Your task to perform on an android device: Clear the cart on target.com. Add apple airpods pro to the cart on target.com Image 0: 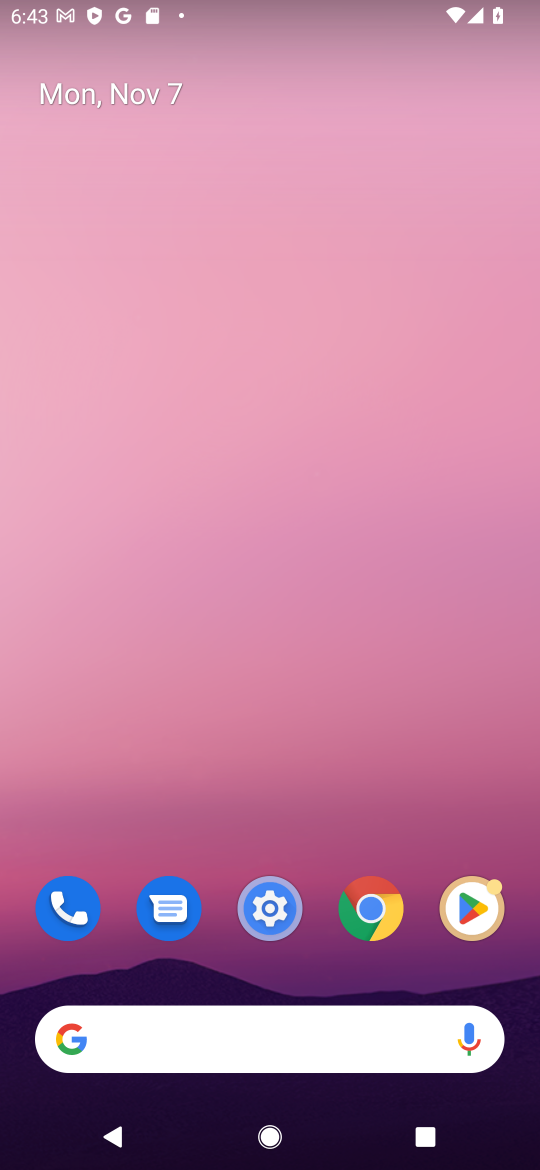
Step 0: click (361, 985)
Your task to perform on an android device: Clear the cart on target.com. Add apple airpods pro to the cart on target.com Image 1: 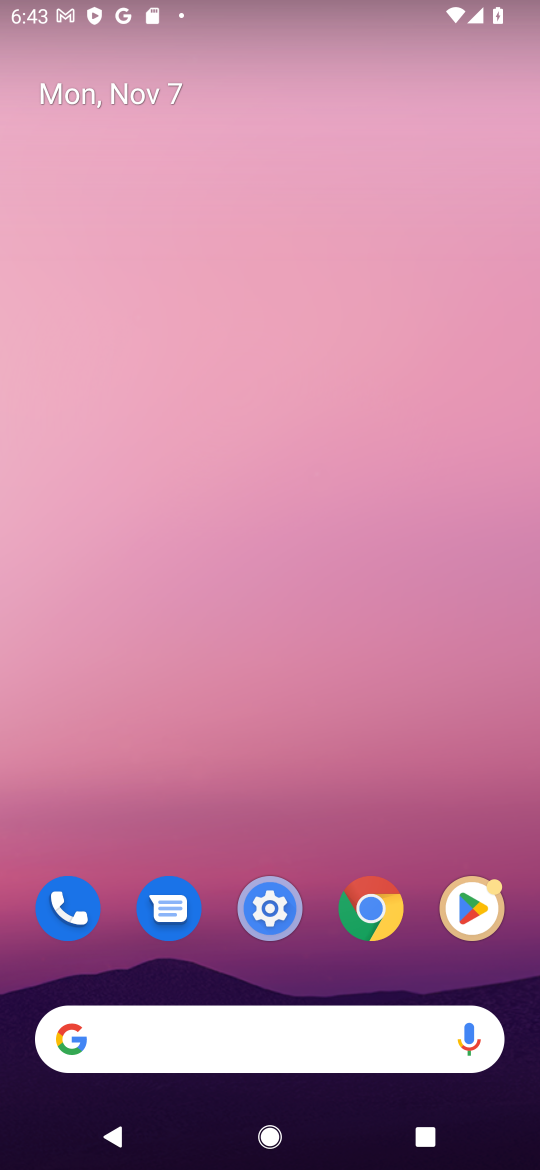
Step 1: click (368, 1022)
Your task to perform on an android device: Clear the cart on target.com. Add apple airpods pro to the cart on target.com Image 2: 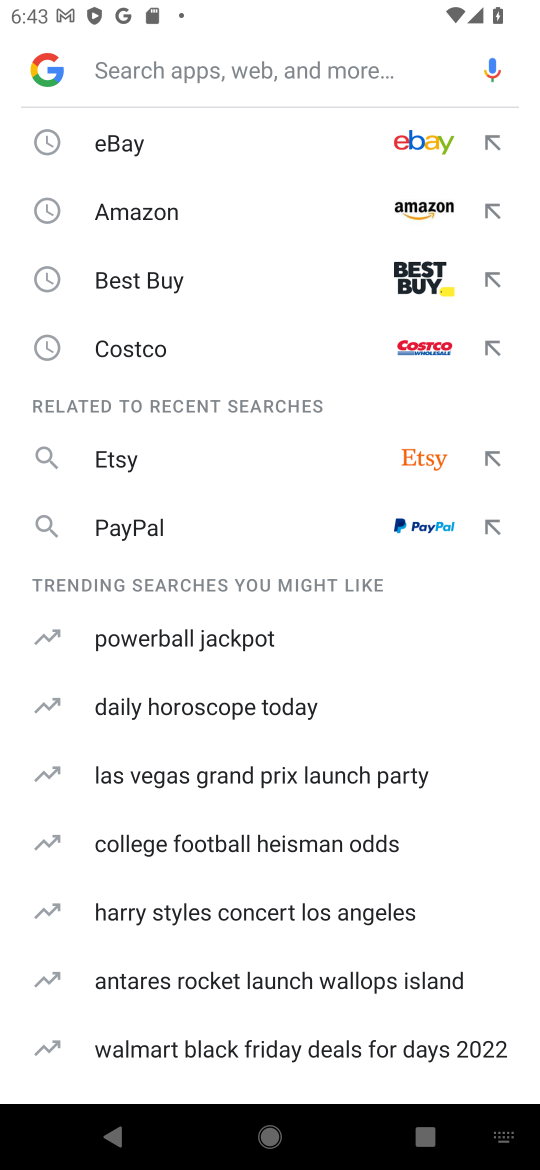
Step 2: type "target"
Your task to perform on an android device: Clear the cart on target.com. Add apple airpods pro to the cart on target.com Image 3: 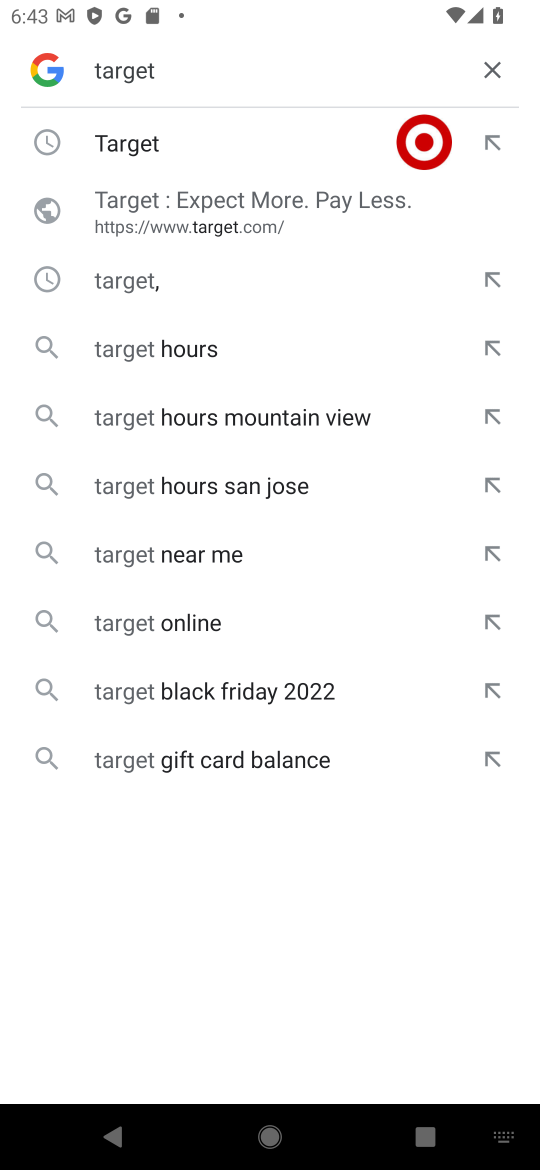
Step 3: click (200, 164)
Your task to perform on an android device: Clear the cart on target.com. Add apple airpods pro to the cart on target.com Image 4: 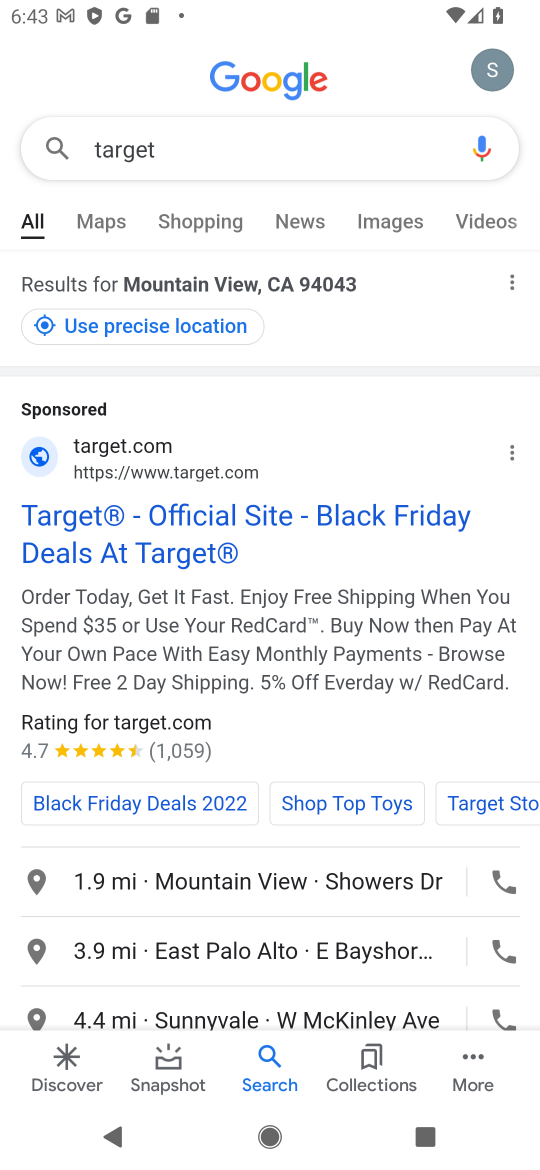
Step 4: click (275, 530)
Your task to perform on an android device: Clear the cart on target.com. Add apple airpods pro to the cart on target.com Image 5: 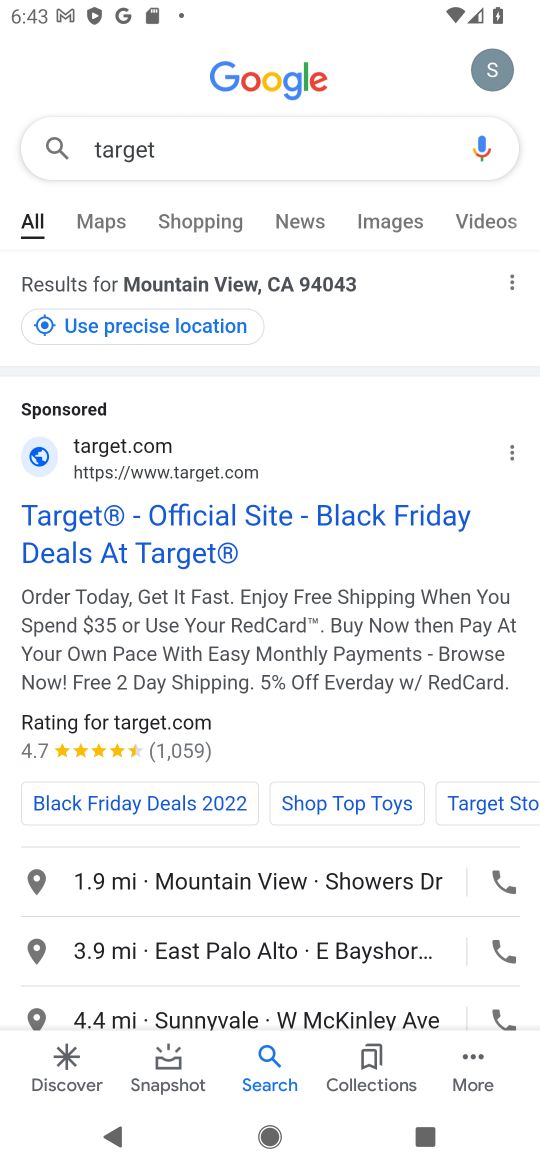
Step 5: task complete